Your task to perform on an android device: toggle show notifications on the lock screen Image 0: 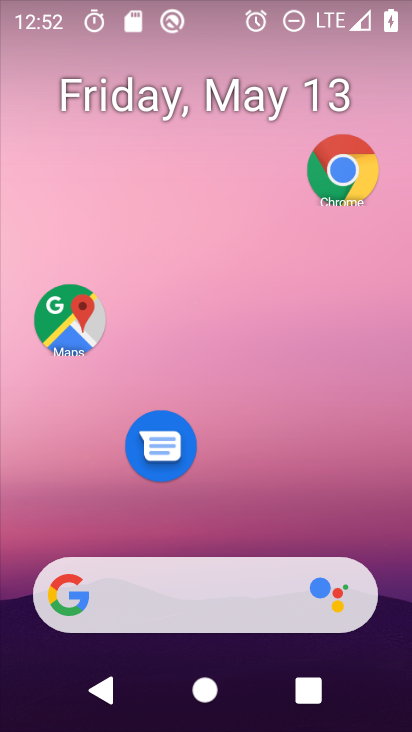
Step 0: drag from (234, 580) to (338, 6)
Your task to perform on an android device: toggle show notifications on the lock screen Image 1: 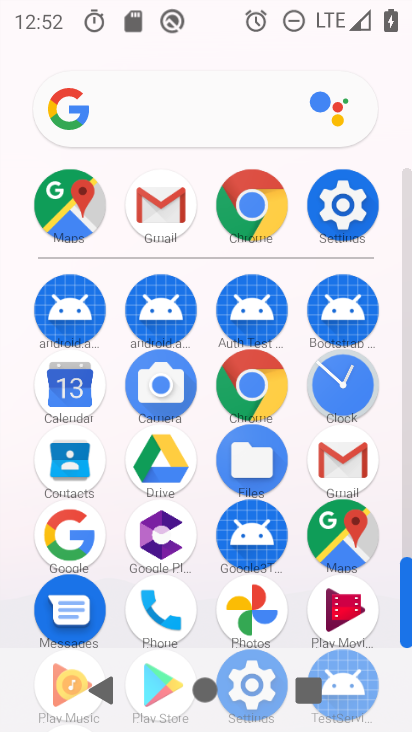
Step 1: click (369, 209)
Your task to perform on an android device: toggle show notifications on the lock screen Image 2: 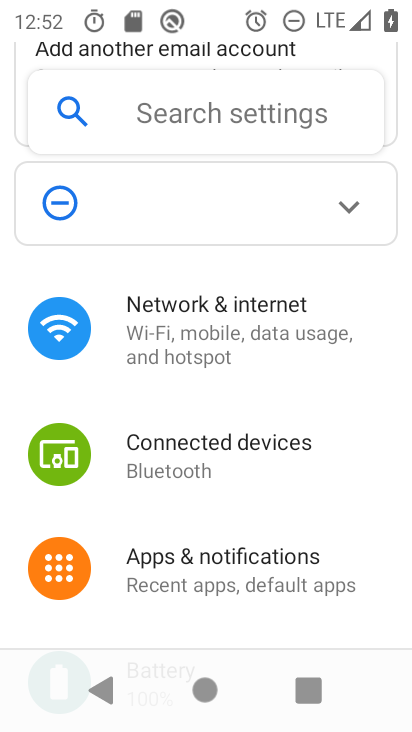
Step 2: click (259, 574)
Your task to perform on an android device: toggle show notifications on the lock screen Image 3: 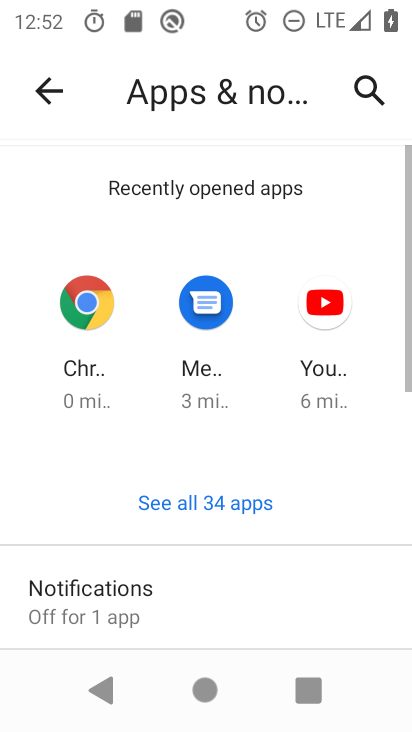
Step 3: drag from (259, 574) to (270, 120)
Your task to perform on an android device: toggle show notifications on the lock screen Image 4: 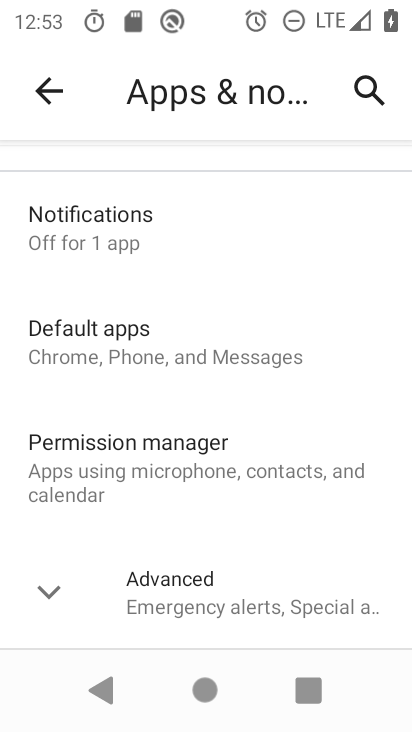
Step 4: click (223, 597)
Your task to perform on an android device: toggle show notifications on the lock screen Image 5: 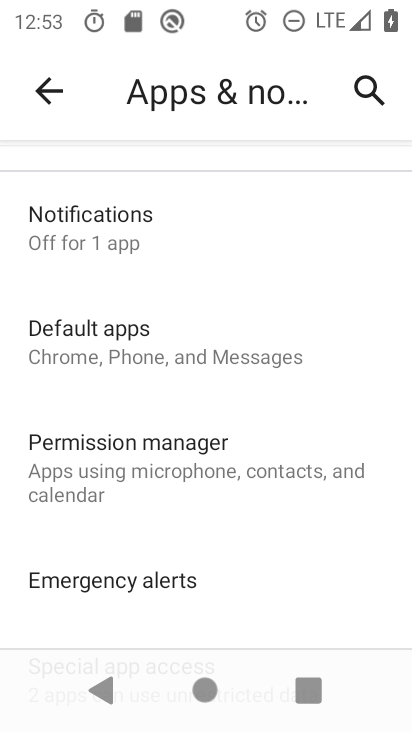
Step 5: click (162, 228)
Your task to perform on an android device: toggle show notifications on the lock screen Image 6: 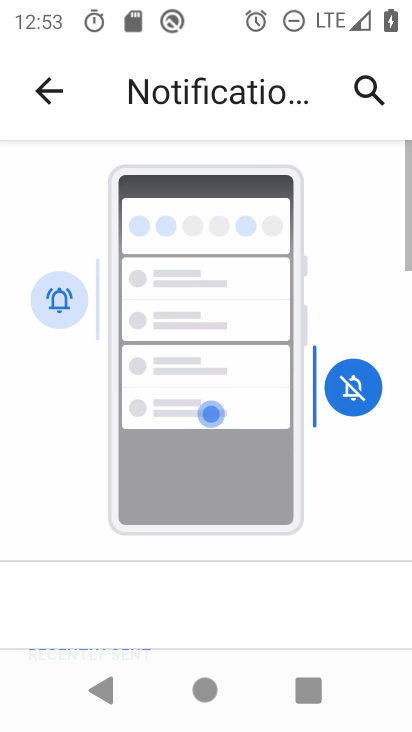
Step 6: drag from (236, 607) to (360, 65)
Your task to perform on an android device: toggle show notifications on the lock screen Image 7: 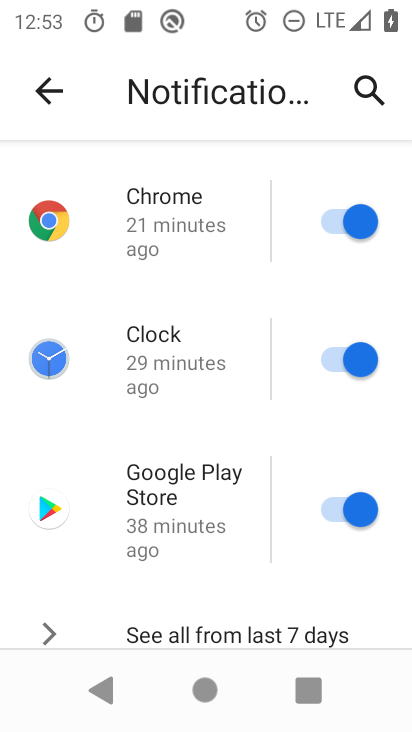
Step 7: drag from (250, 599) to (253, 66)
Your task to perform on an android device: toggle show notifications on the lock screen Image 8: 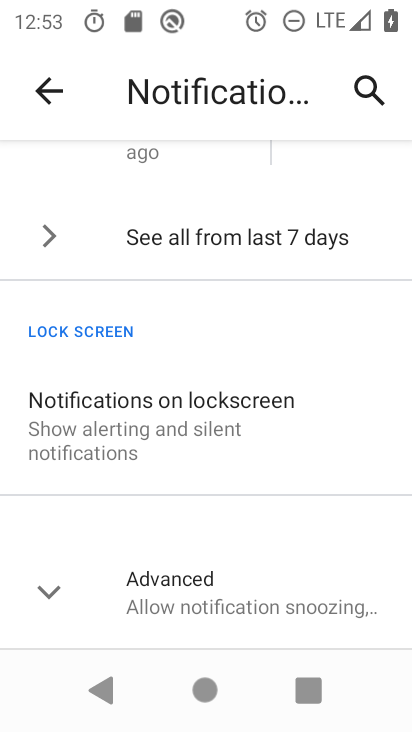
Step 8: click (234, 601)
Your task to perform on an android device: toggle show notifications on the lock screen Image 9: 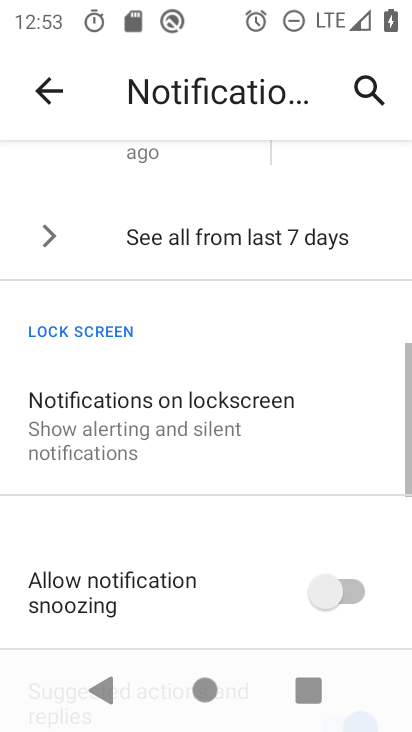
Step 9: click (238, 430)
Your task to perform on an android device: toggle show notifications on the lock screen Image 10: 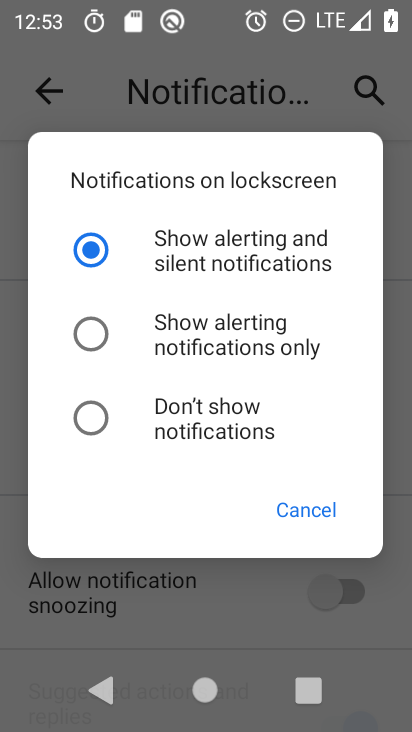
Step 10: click (137, 416)
Your task to perform on an android device: toggle show notifications on the lock screen Image 11: 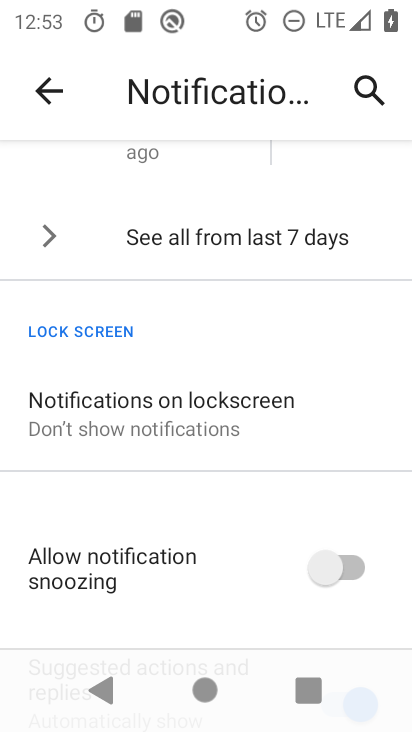
Step 11: task complete